Your task to perform on an android device: Open Youtube and go to the subscriptions tab Image 0: 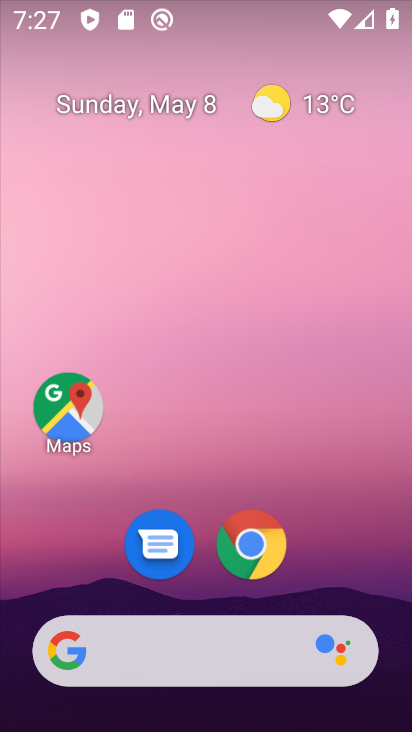
Step 0: drag from (343, 574) to (282, 54)
Your task to perform on an android device: Open Youtube and go to the subscriptions tab Image 1: 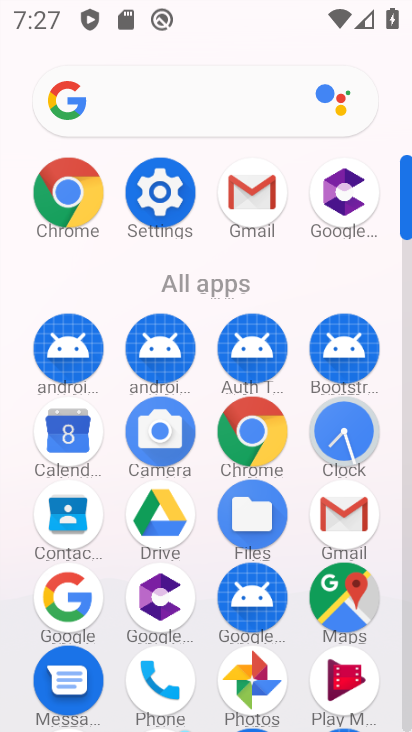
Step 1: click (404, 614)
Your task to perform on an android device: Open Youtube and go to the subscriptions tab Image 2: 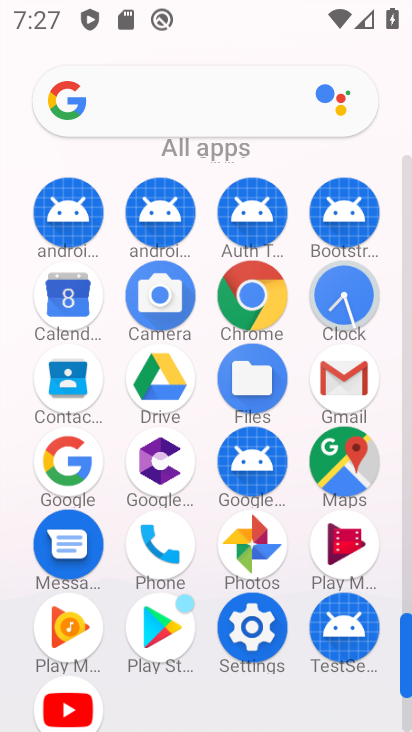
Step 2: click (66, 703)
Your task to perform on an android device: Open Youtube and go to the subscriptions tab Image 3: 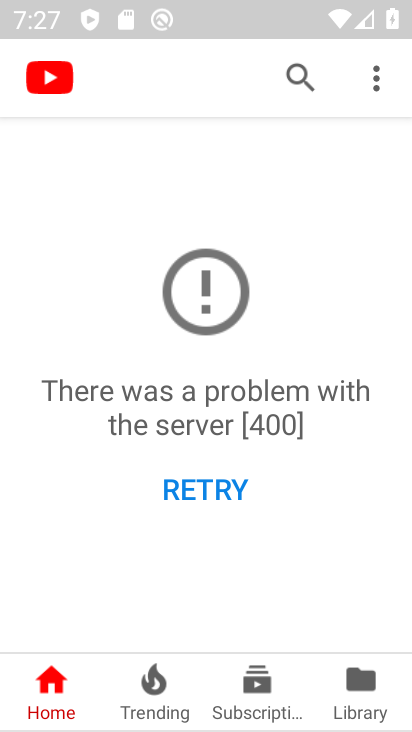
Step 3: click (252, 689)
Your task to perform on an android device: Open Youtube and go to the subscriptions tab Image 4: 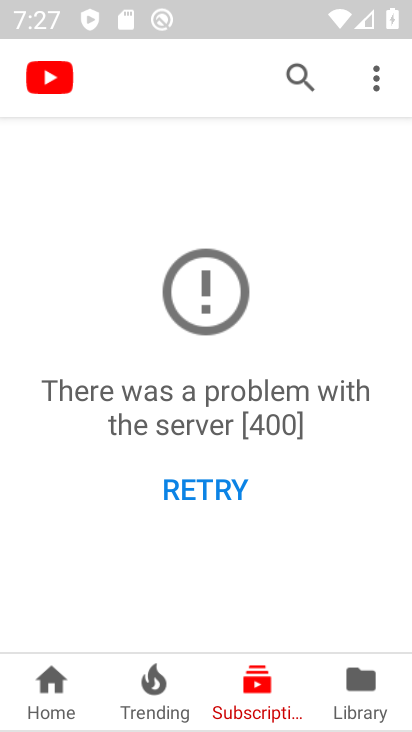
Step 4: task complete